Your task to perform on an android device: Go to network settings Image 0: 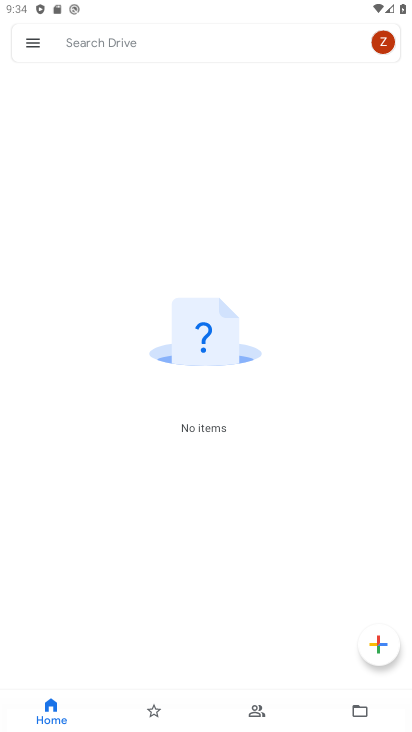
Step 0: press home button
Your task to perform on an android device: Go to network settings Image 1: 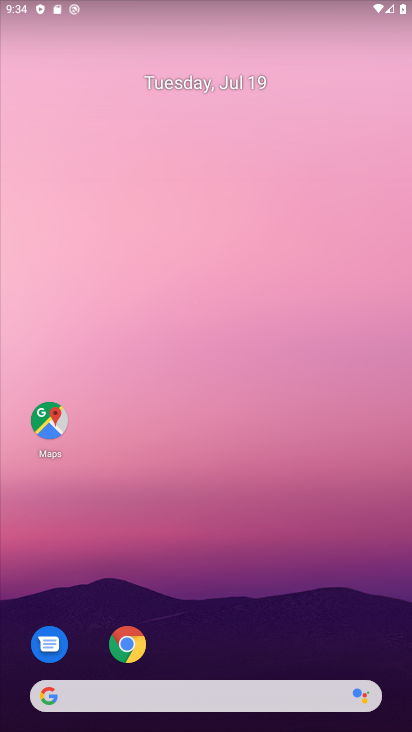
Step 1: drag from (379, 643) to (297, 119)
Your task to perform on an android device: Go to network settings Image 2: 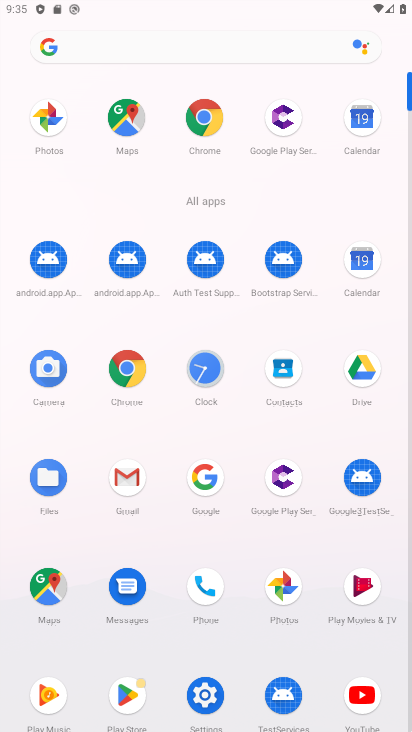
Step 2: click (211, 690)
Your task to perform on an android device: Go to network settings Image 3: 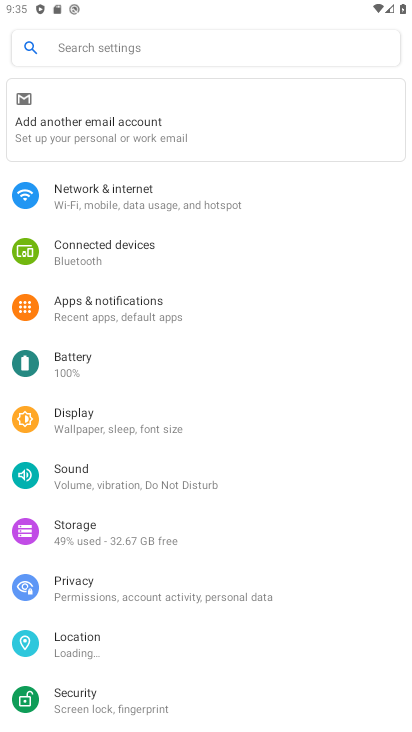
Step 3: click (152, 191)
Your task to perform on an android device: Go to network settings Image 4: 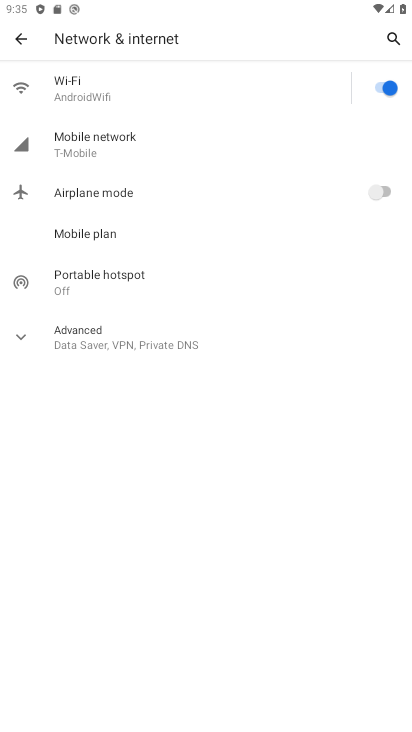
Step 4: task complete